Your task to perform on an android device: Open Maps and search for coffee Image 0: 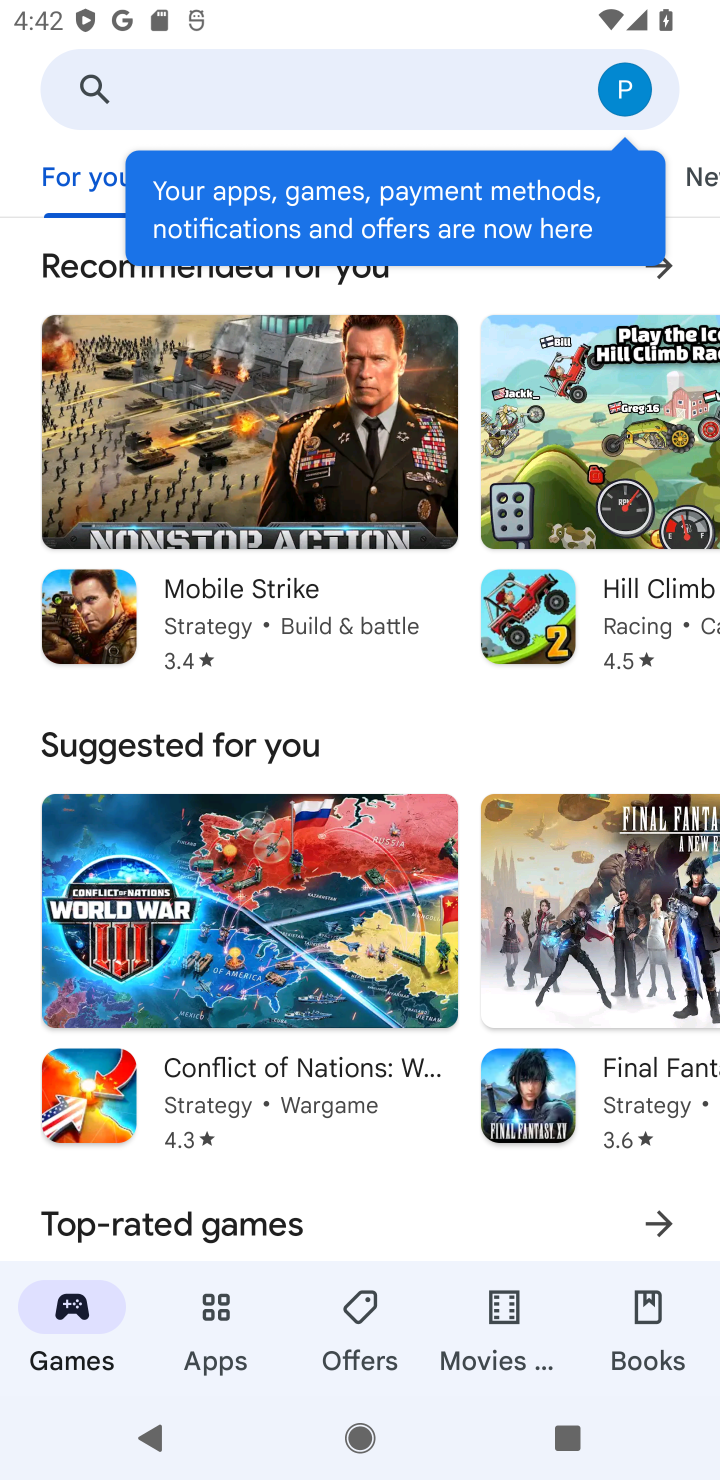
Step 0: press home button
Your task to perform on an android device: Open Maps and search for coffee Image 1: 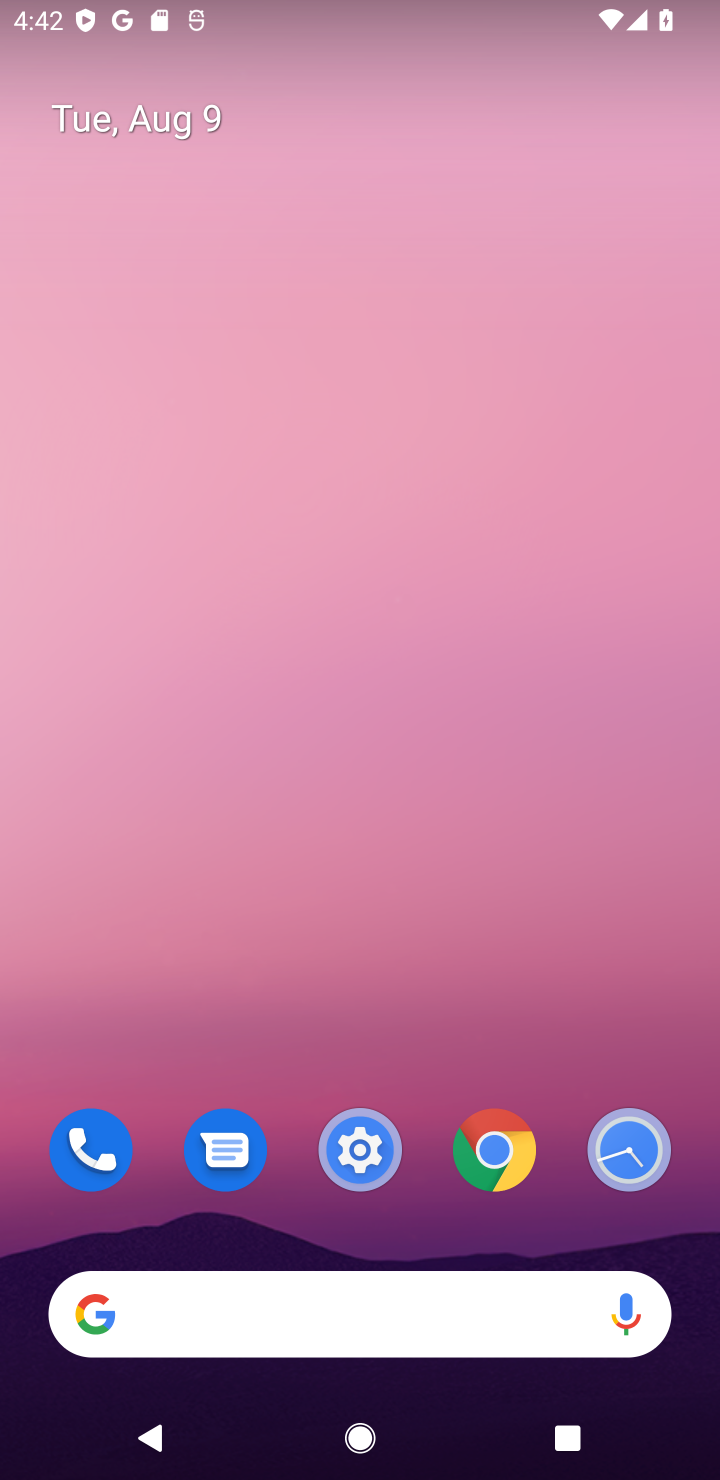
Step 1: drag from (377, 1315) to (215, 50)
Your task to perform on an android device: Open Maps and search for coffee Image 2: 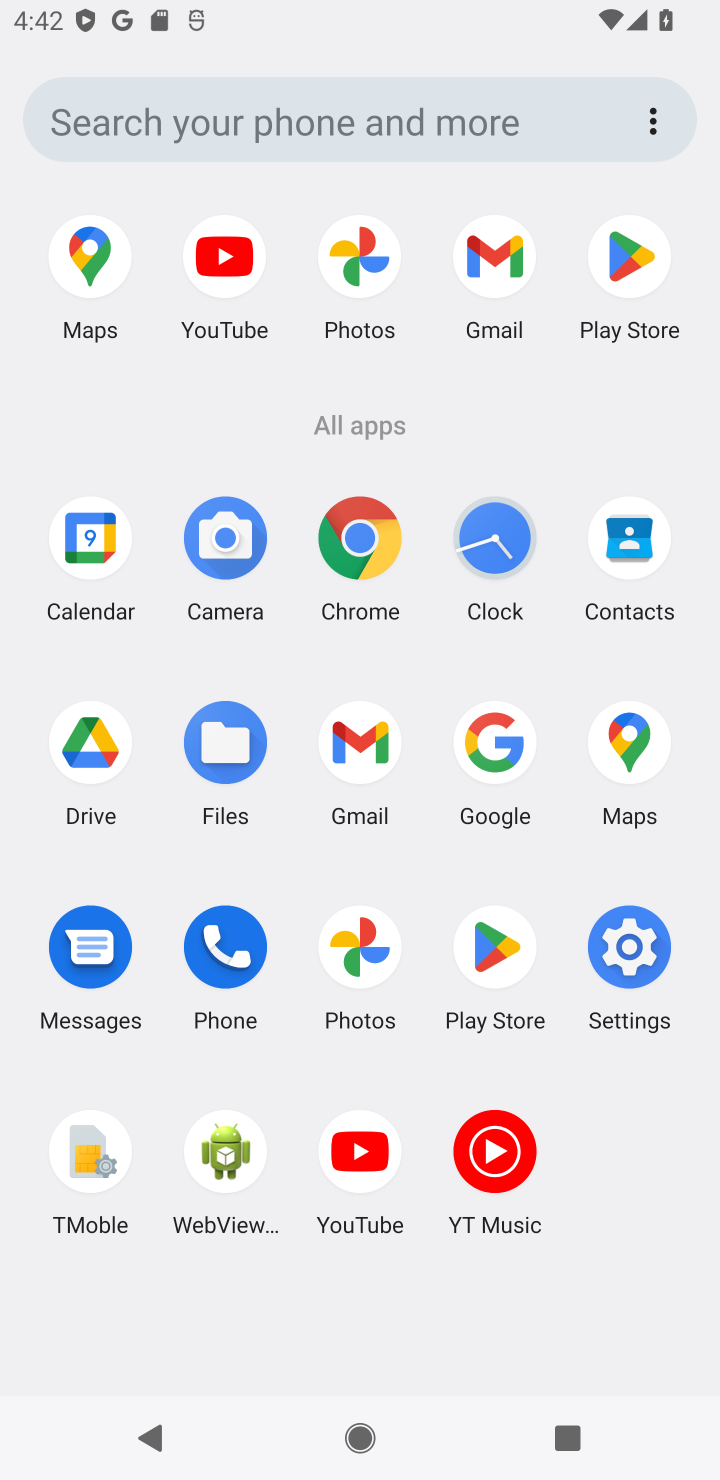
Step 2: click (619, 756)
Your task to perform on an android device: Open Maps and search for coffee Image 3: 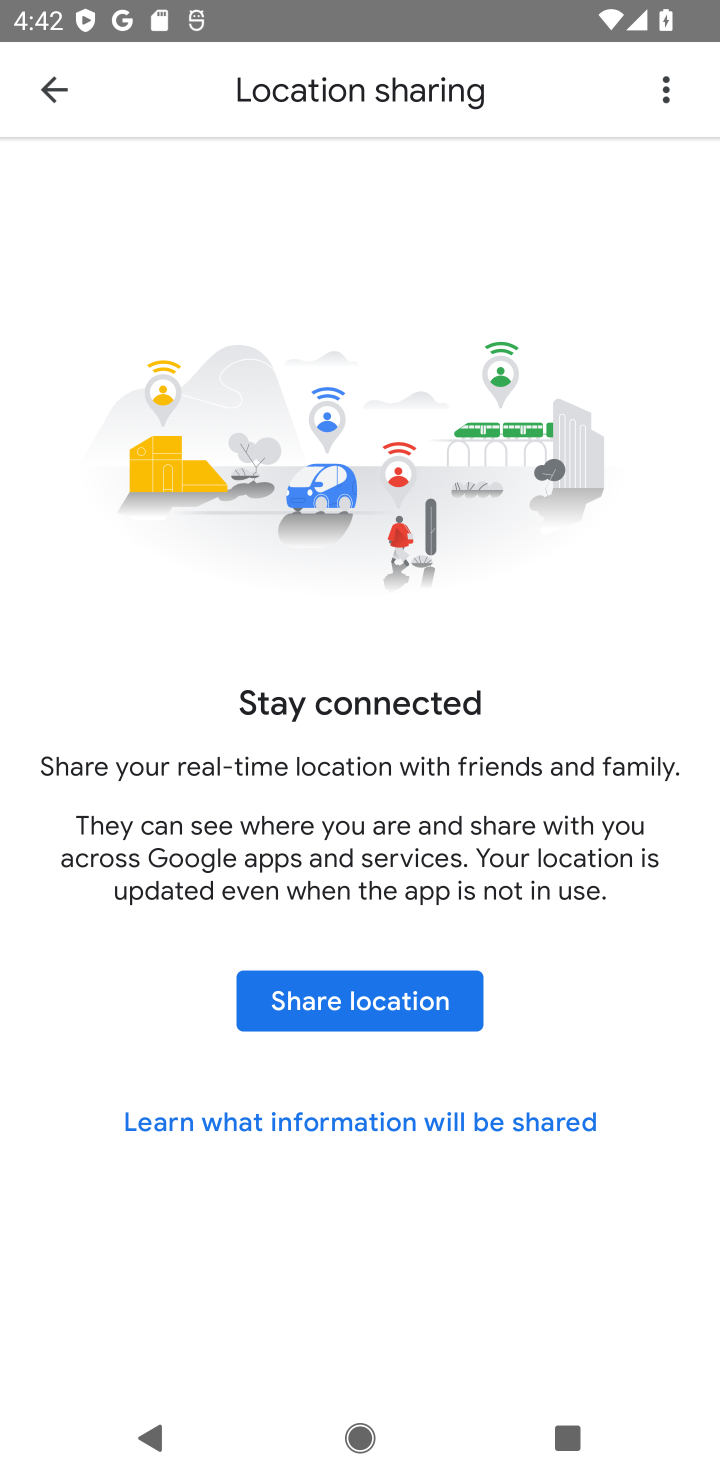
Step 3: press home button
Your task to perform on an android device: Open Maps and search for coffee Image 4: 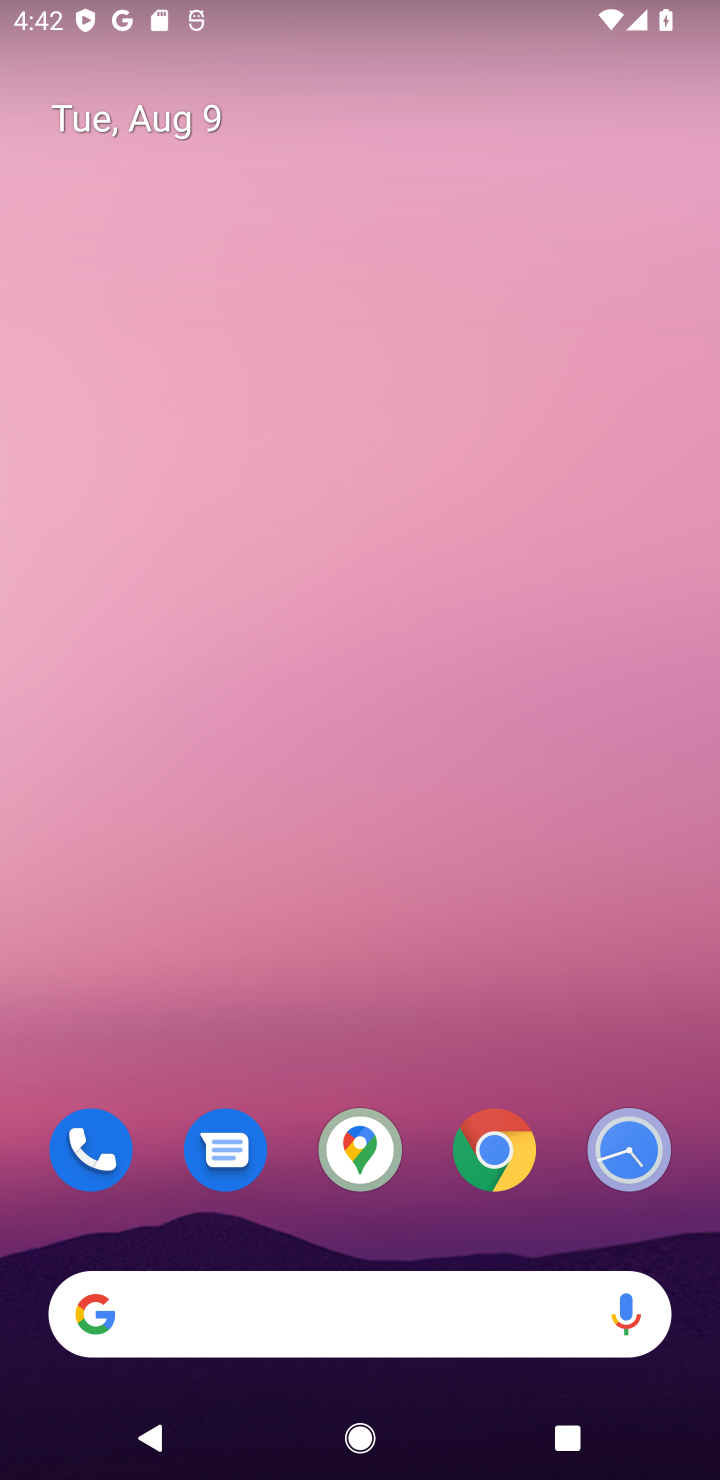
Step 4: drag from (386, 1251) to (595, 29)
Your task to perform on an android device: Open Maps and search for coffee Image 5: 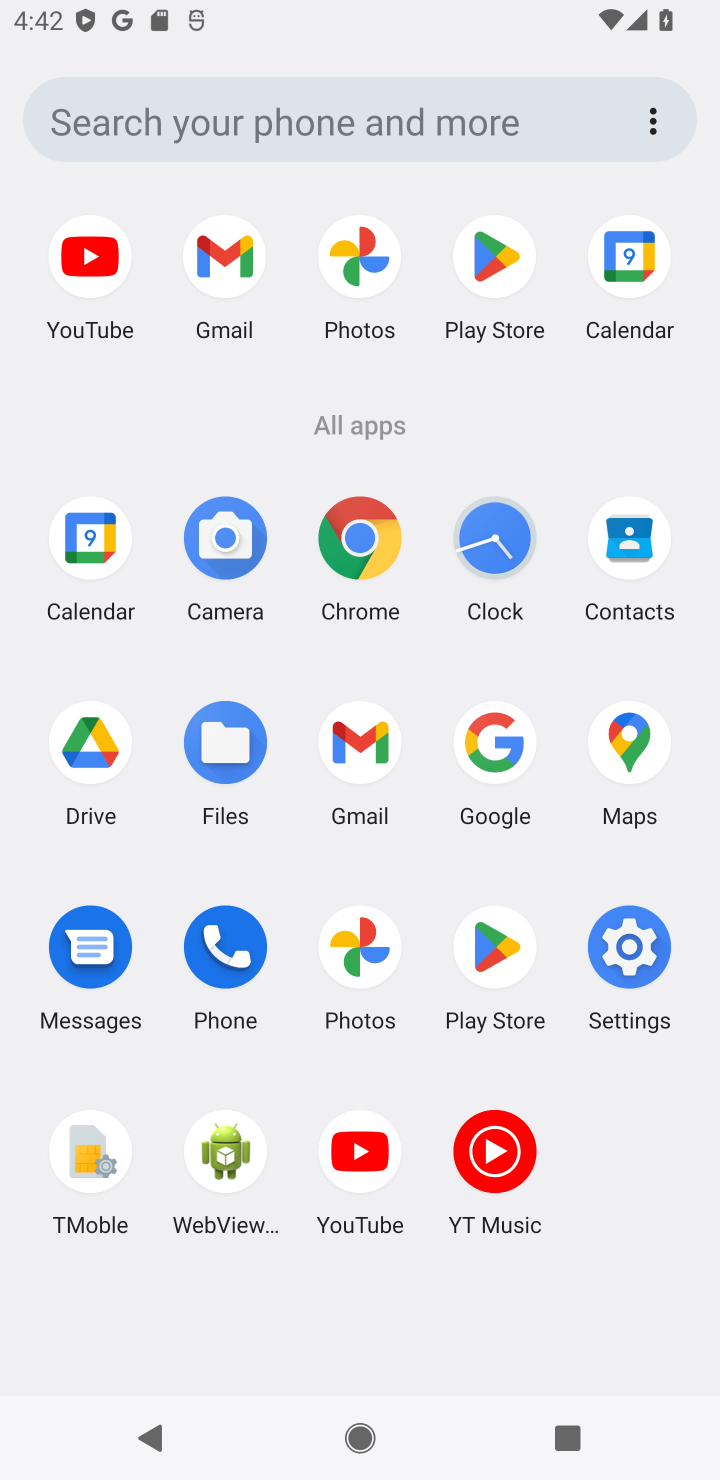
Step 5: click (631, 739)
Your task to perform on an android device: Open Maps and search for coffee Image 6: 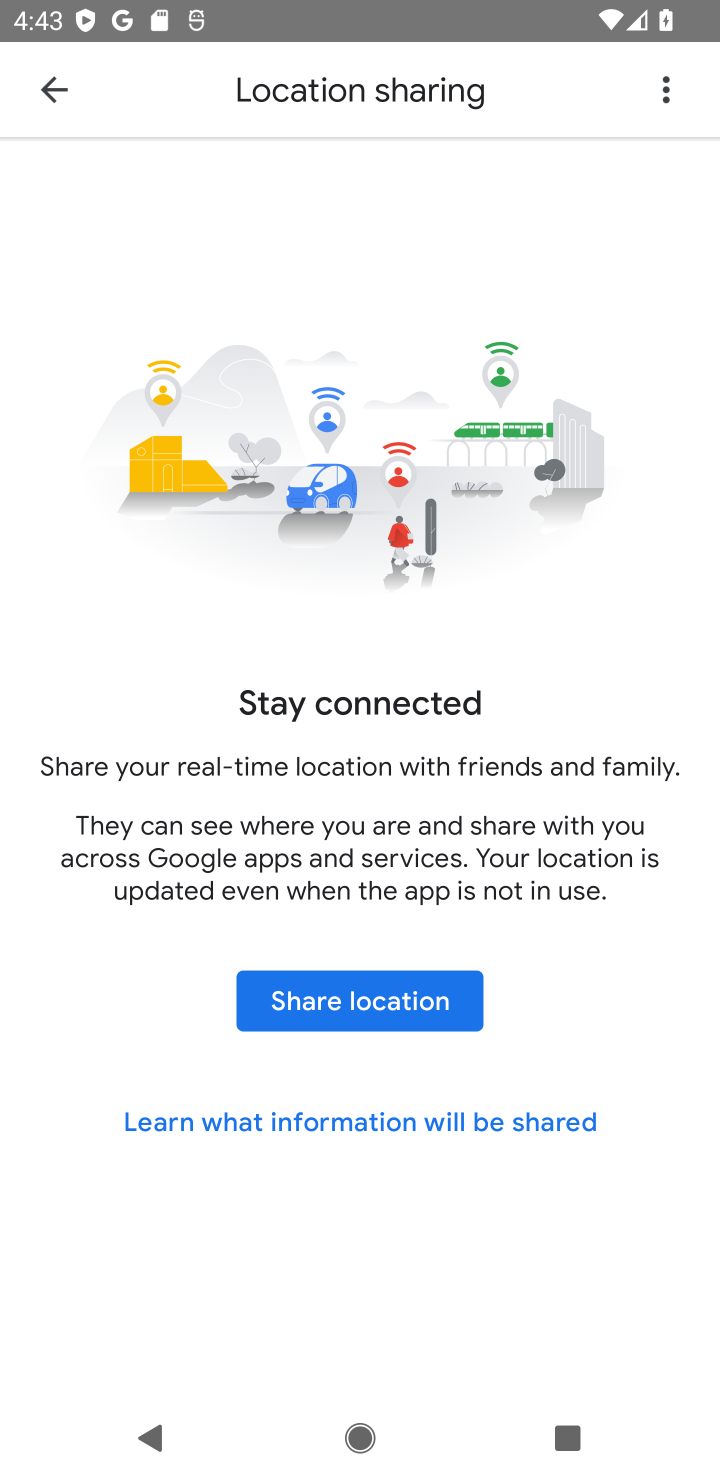
Step 6: click (26, 101)
Your task to perform on an android device: Open Maps and search for coffee Image 7: 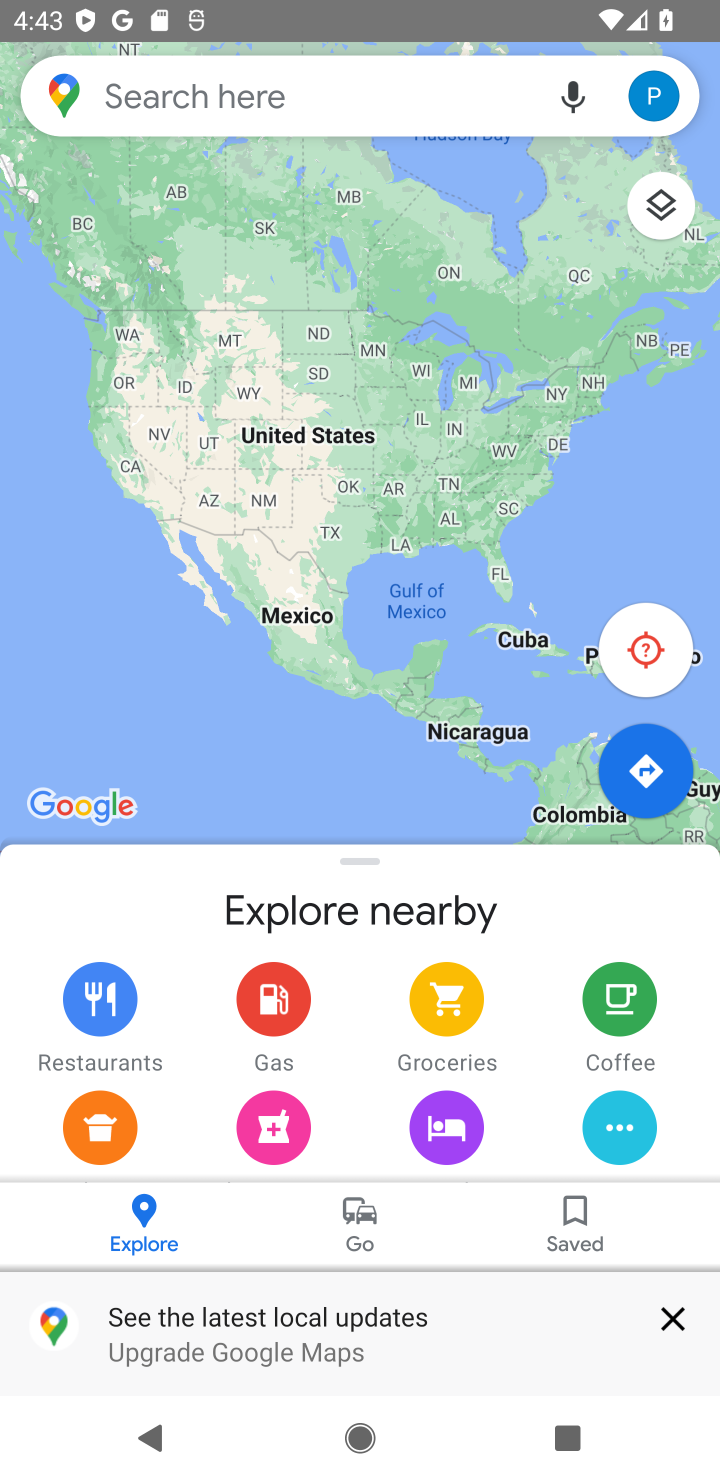
Step 7: click (360, 94)
Your task to perform on an android device: Open Maps and search for coffee Image 8: 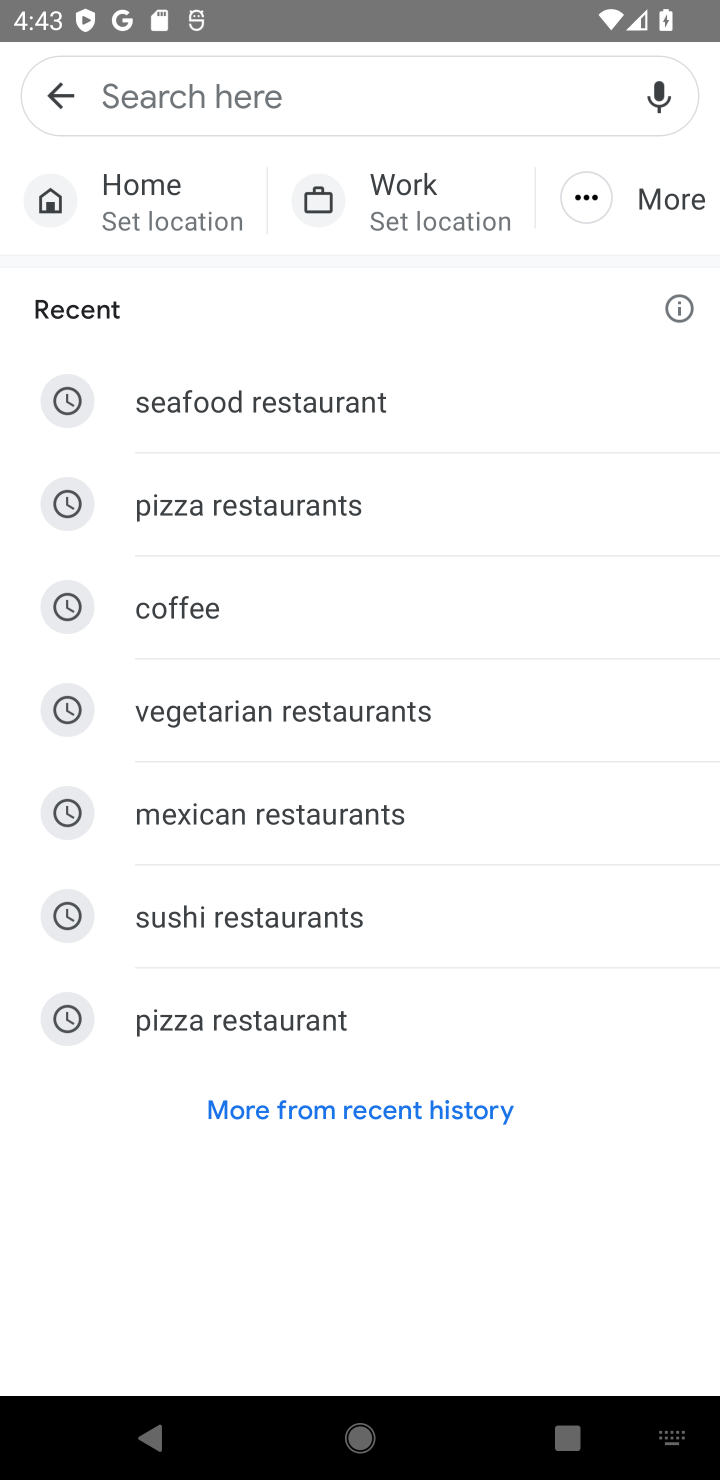
Step 8: click (188, 604)
Your task to perform on an android device: Open Maps and search for coffee Image 9: 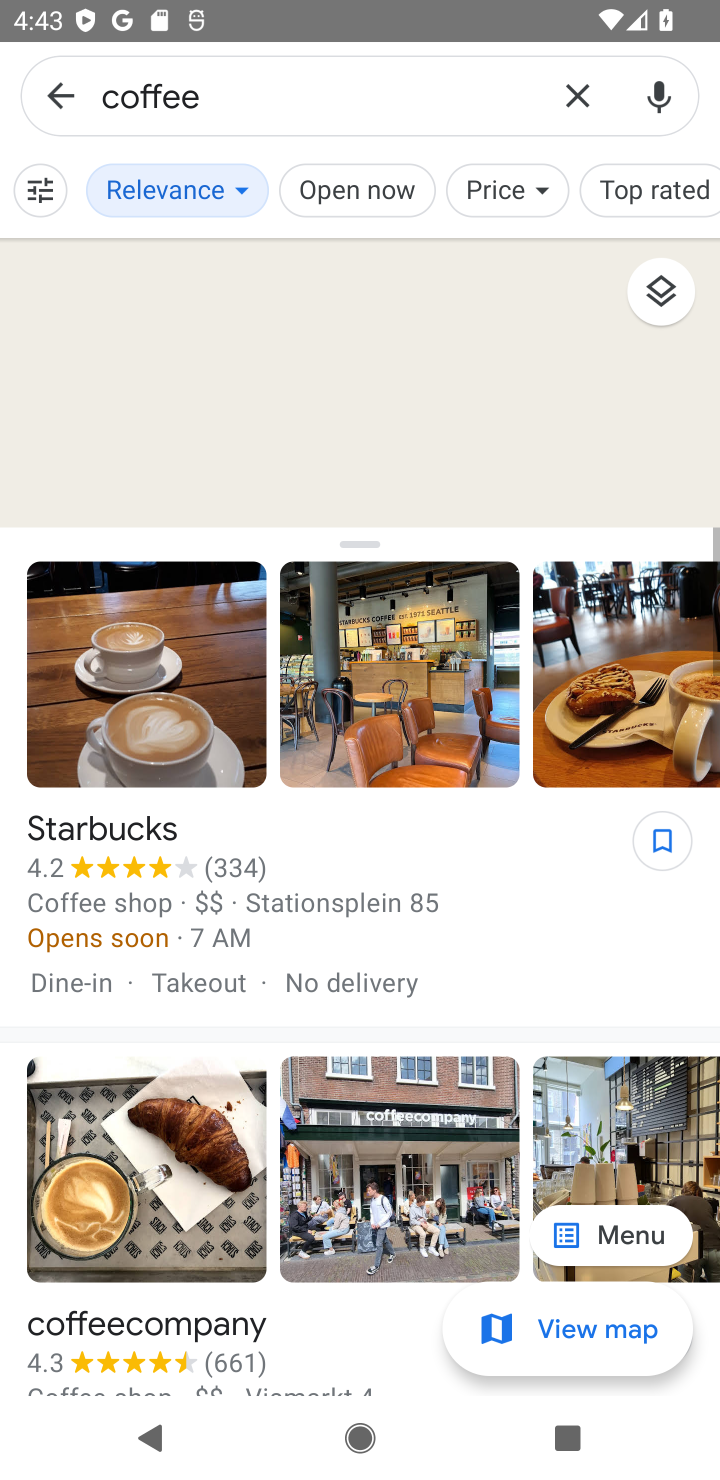
Step 9: task complete